Your task to perform on an android device: View the shopping cart on target. Add usb-c to the cart on target, then select checkout. Image 0: 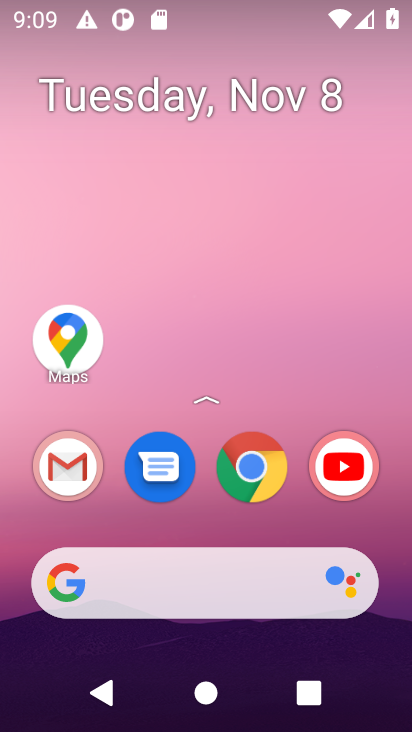
Step 0: type "bestbuy"
Your task to perform on an android device: View the shopping cart on target. Add usb-c to the cart on target, then select checkout. Image 1: 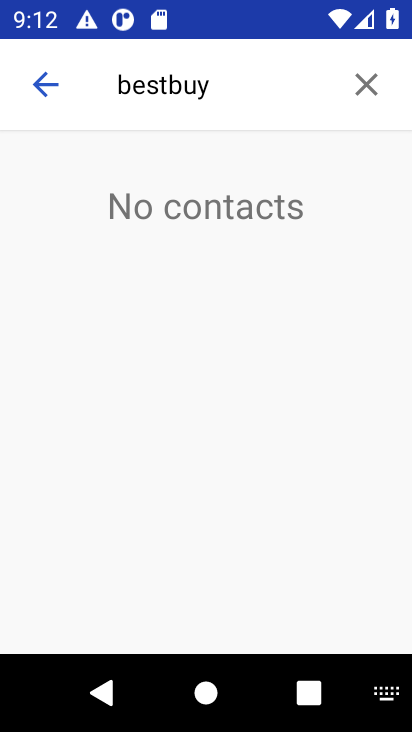
Step 1: task complete